Your task to perform on an android device: empty trash in google photos Image 0: 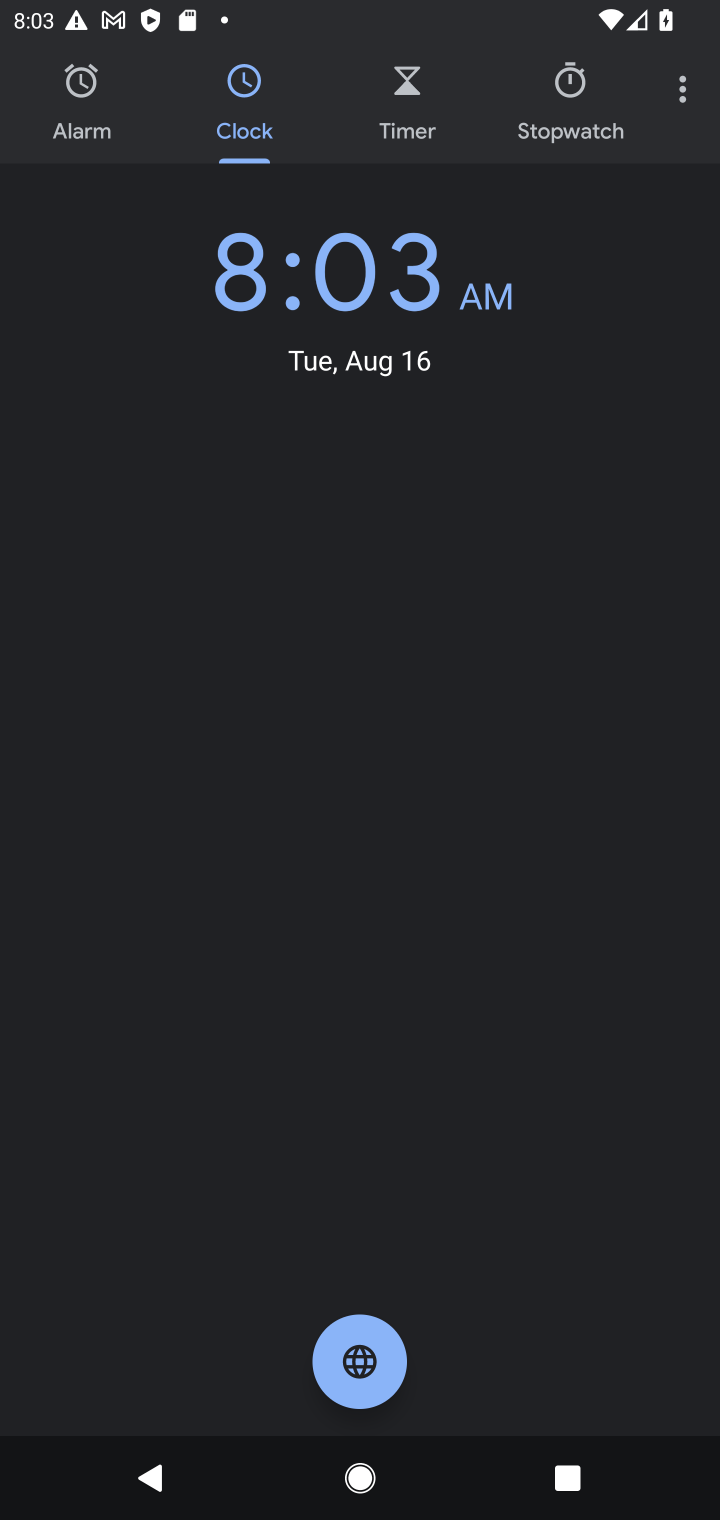
Step 0: press home button
Your task to perform on an android device: empty trash in google photos Image 1: 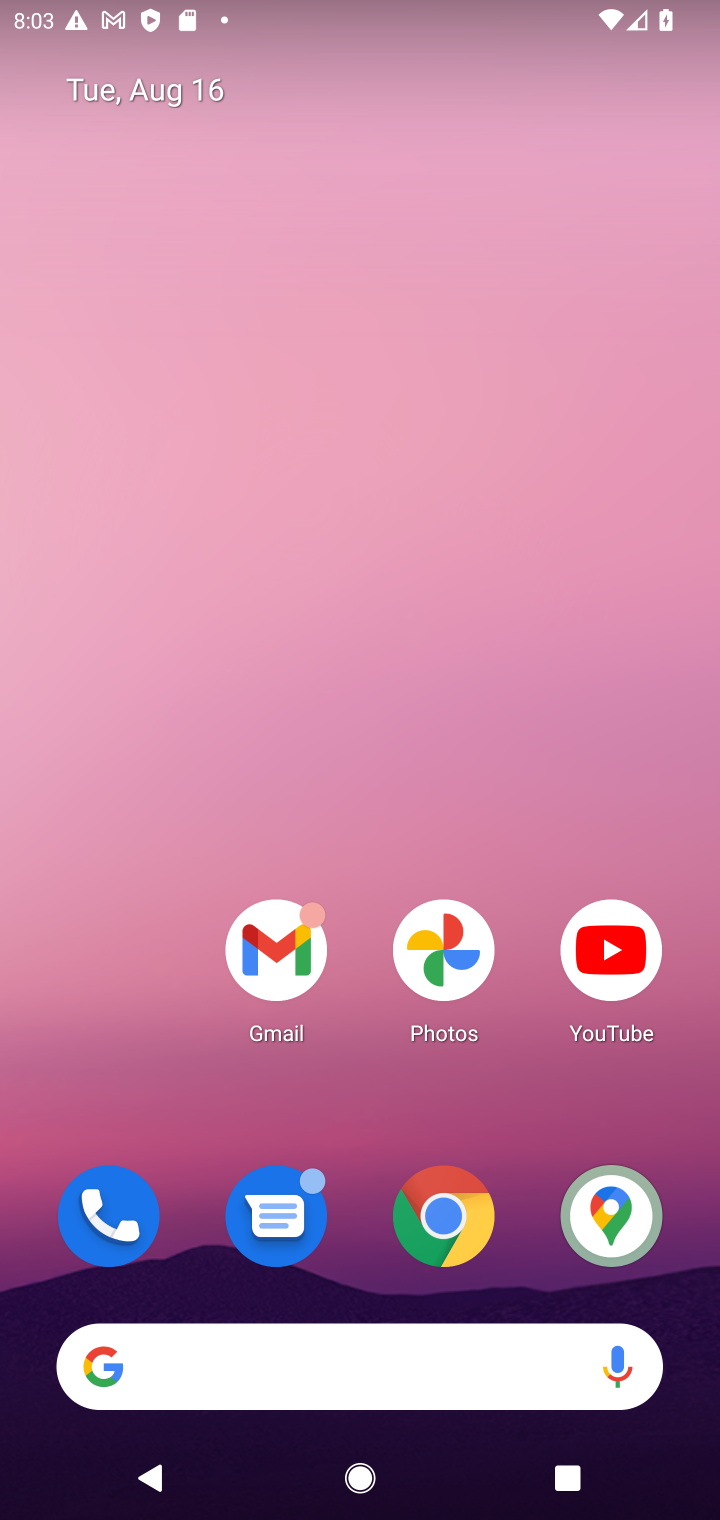
Step 1: drag from (380, 1243) to (528, 5)
Your task to perform on an android device: empty trash in google photos Image 2: 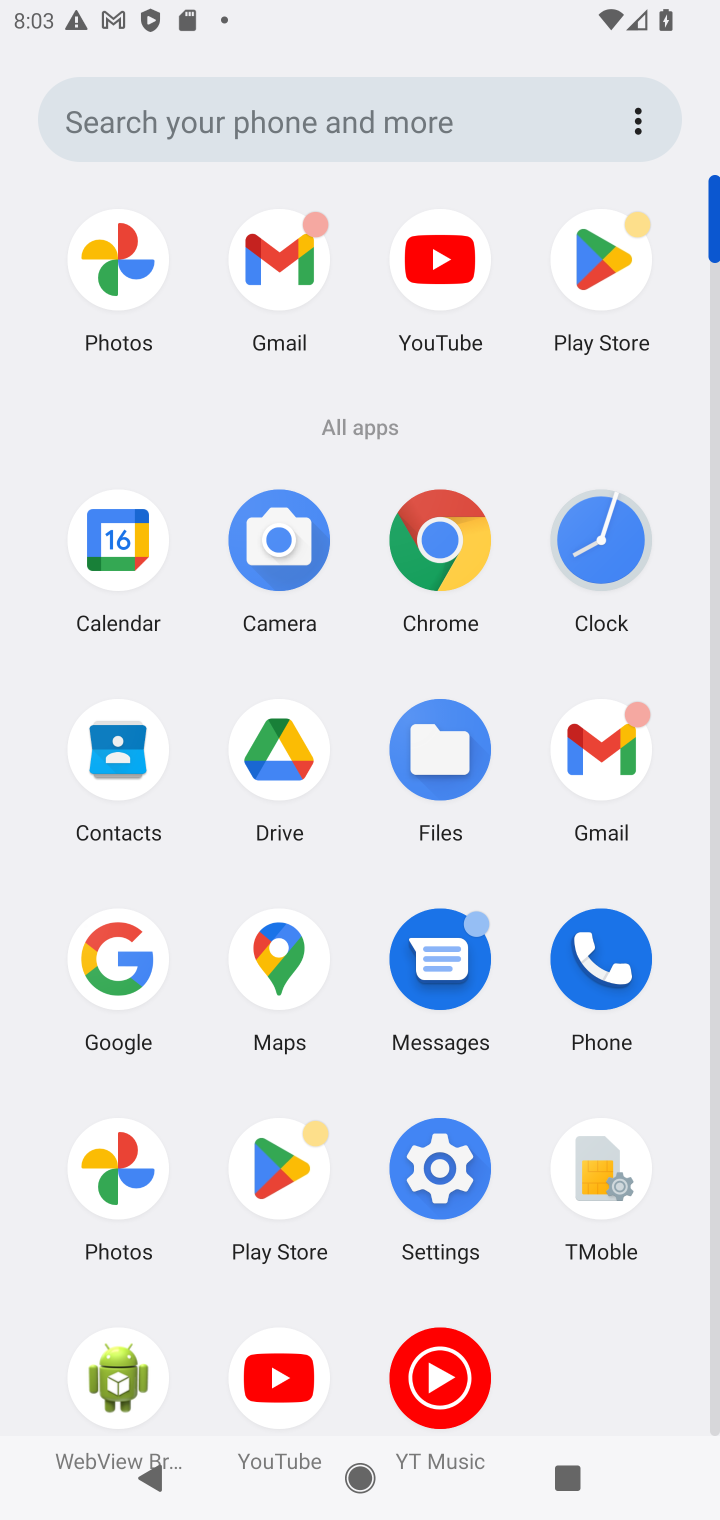
Step 2: click (112, 1187)
Your task to perform on an android device: empty trash in google photos Image 3: 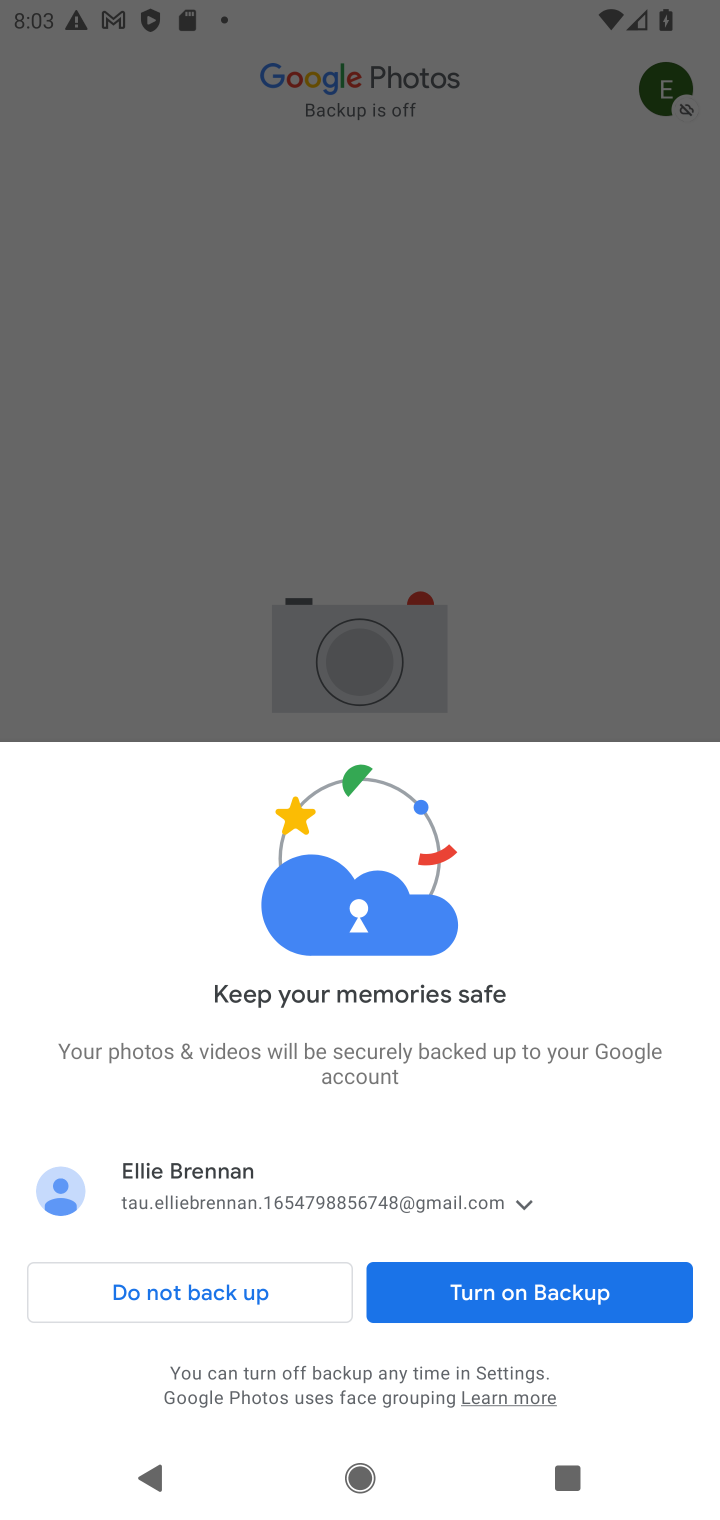
Step 3: click (518, 1286)
Your task to perform on an android device: empty trash in google photos Image 4: 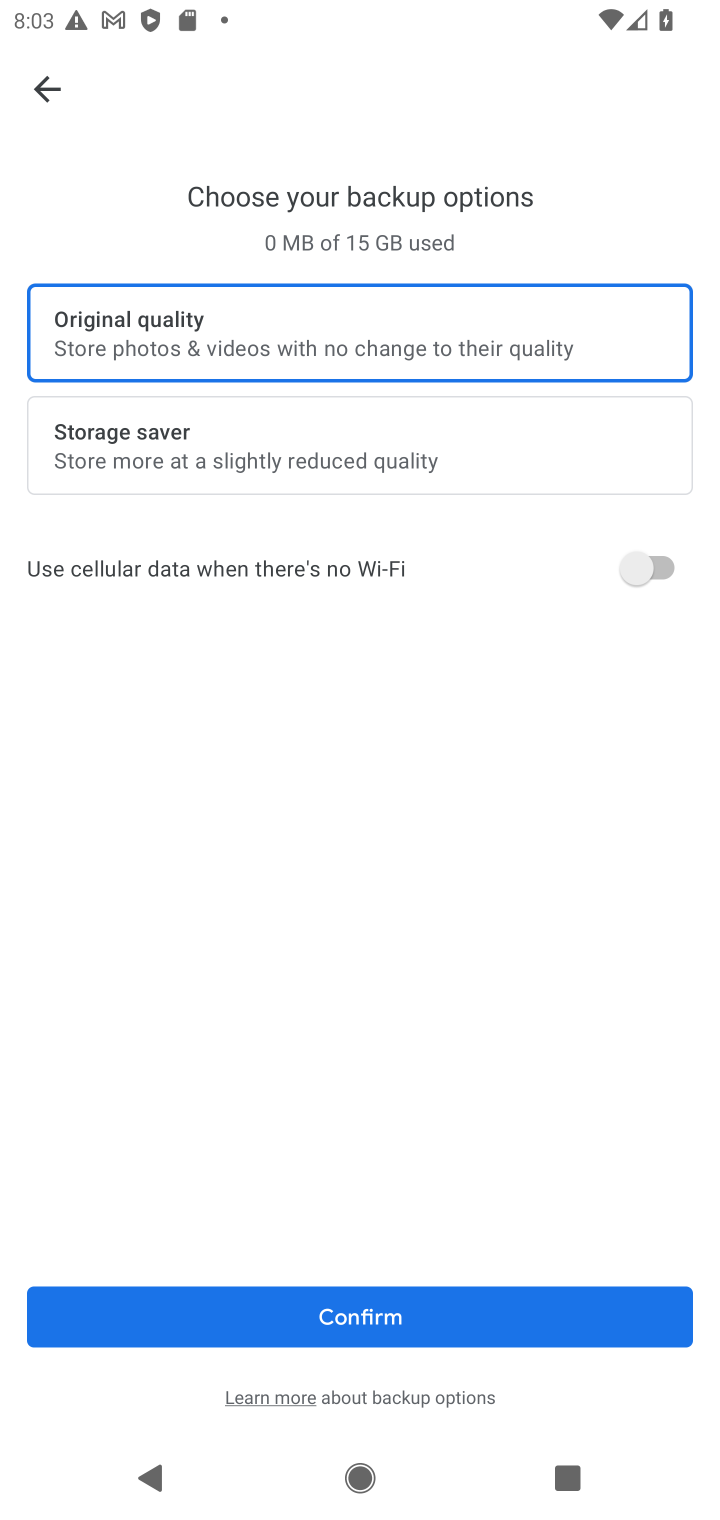
Step 4: click (518, 1286)
Your task to perform on an android device: empty trash in google photos Image 5: 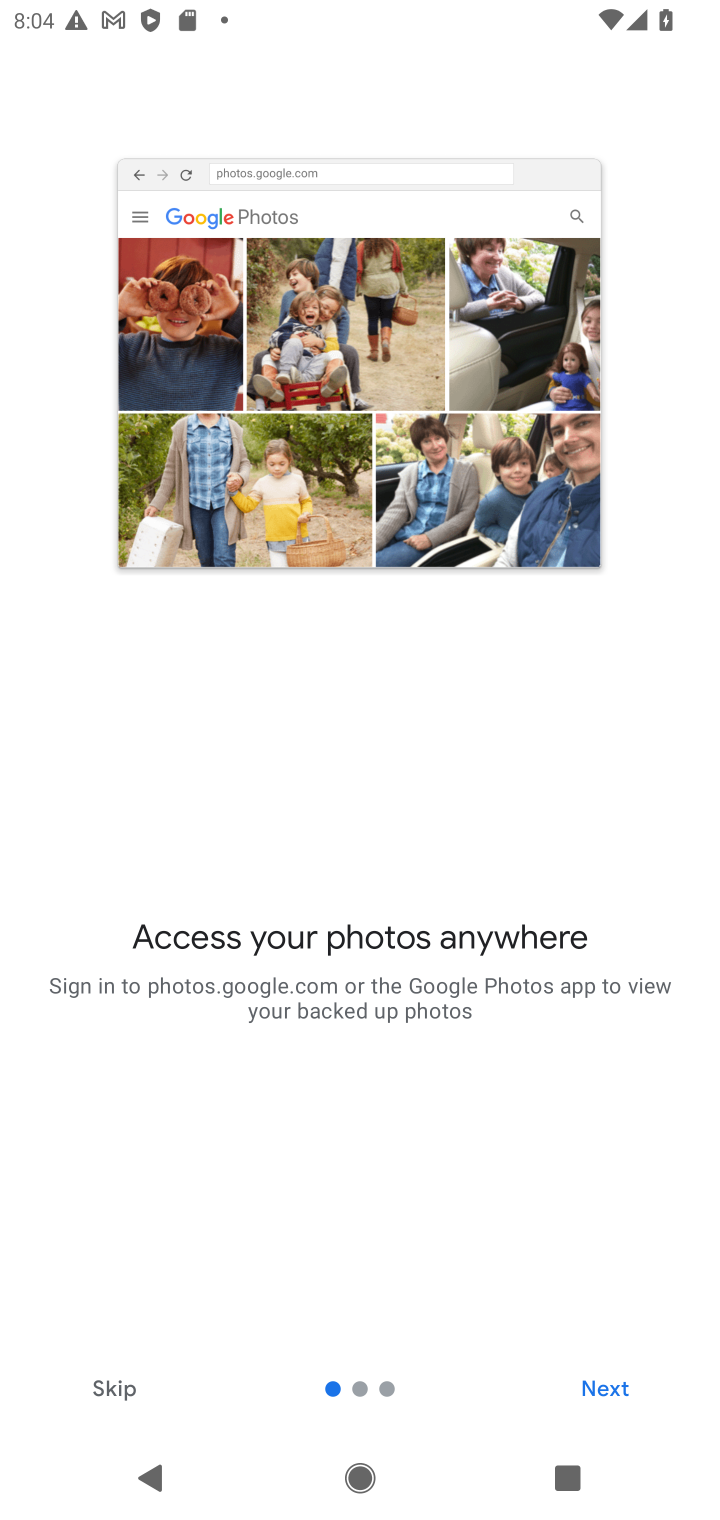
Step 5: click (618, 1397)
Your task to perform on an android device: empty trash in google photos Image 6: 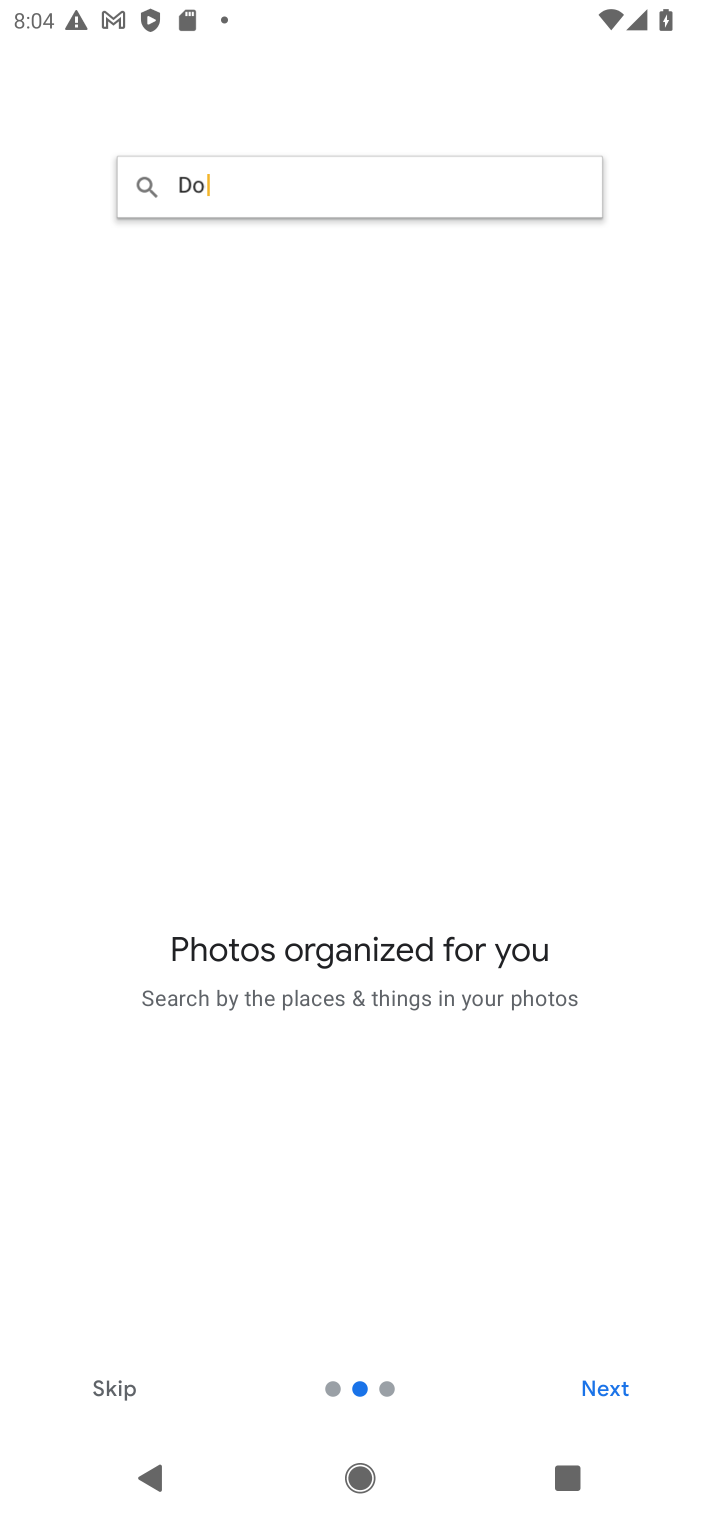
Step 6: click (618, 1397)
Your task to perform on an android device: empty trash in google photos Image 7: 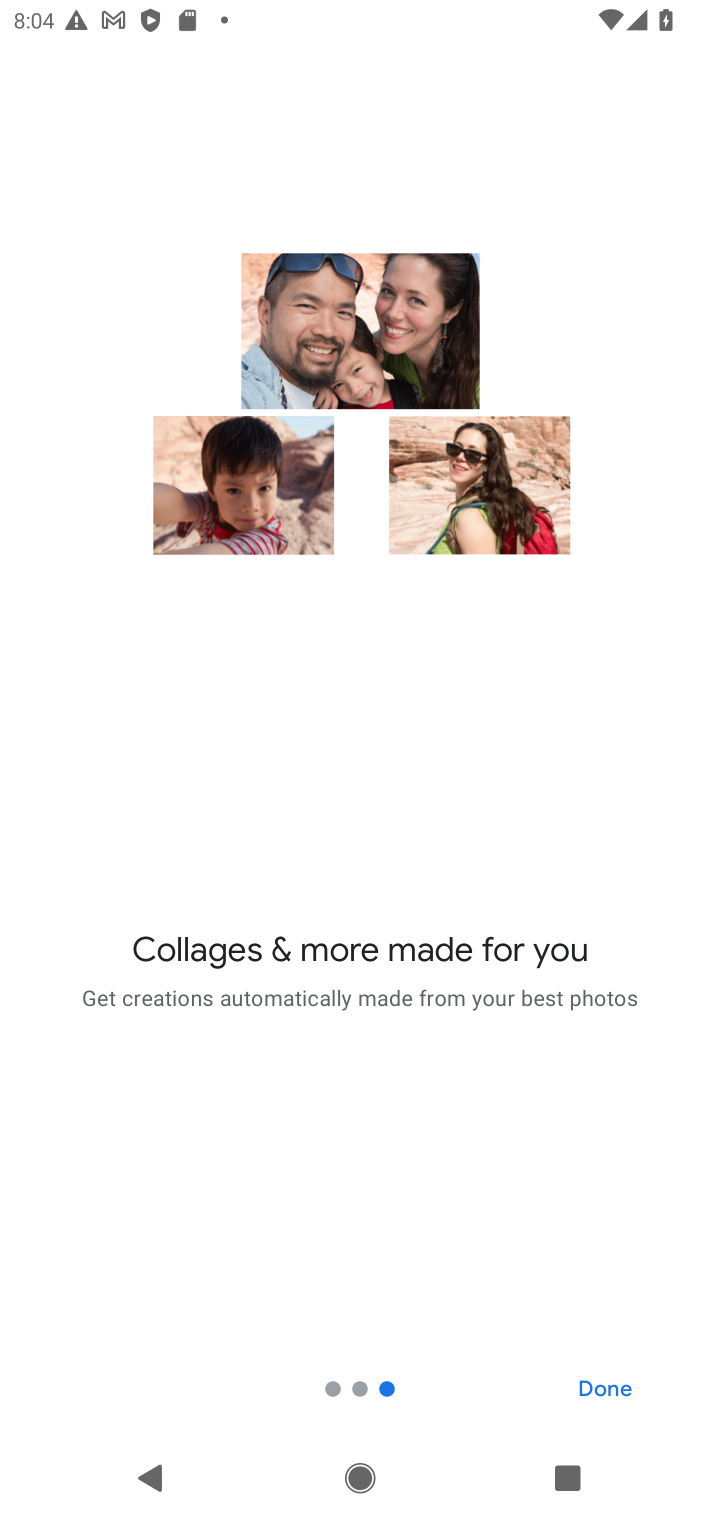
Step 7: click (618, 1397)
Your task to perform on an android device: empty trash in google photos Image 8: 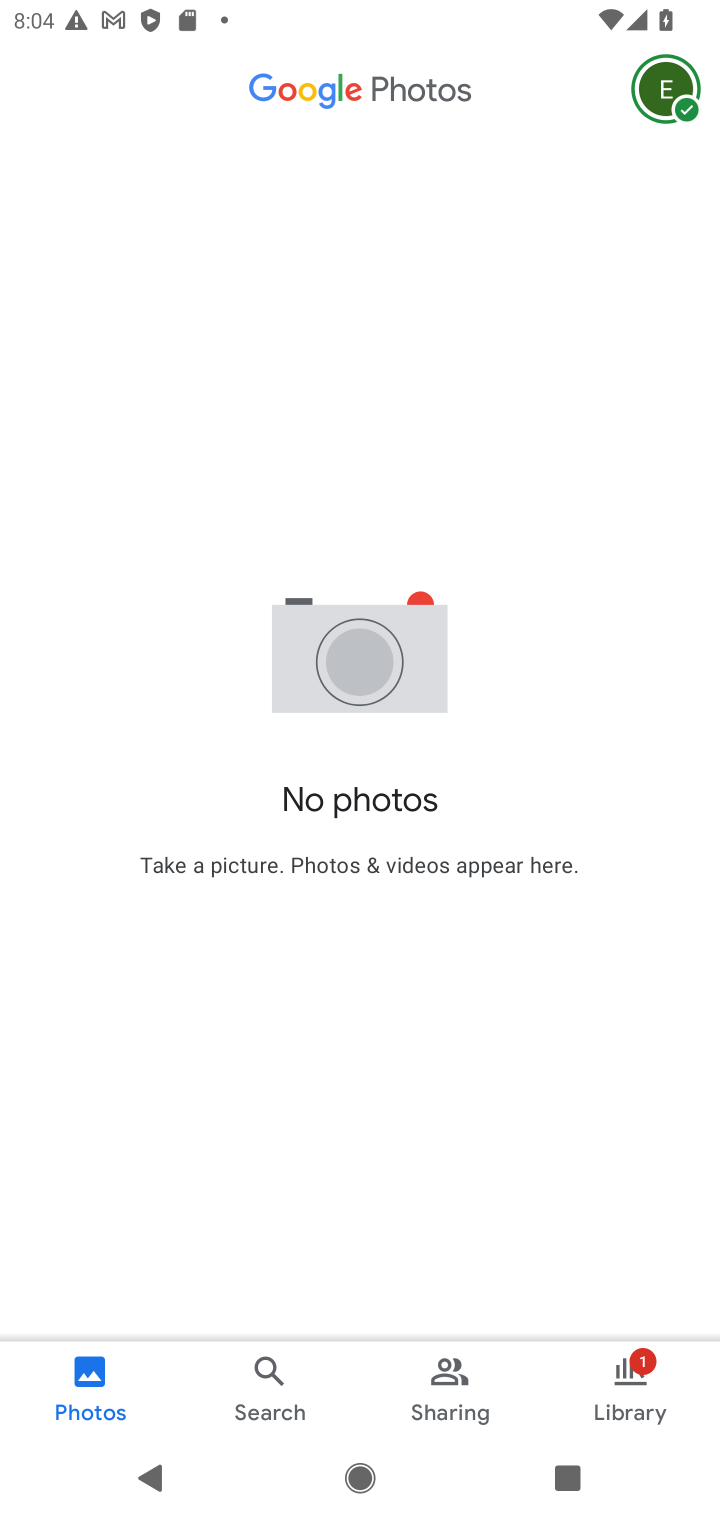
Step 8: click (666, 84)
Your task to perform on an android device: empty trash in google photos Image 9: 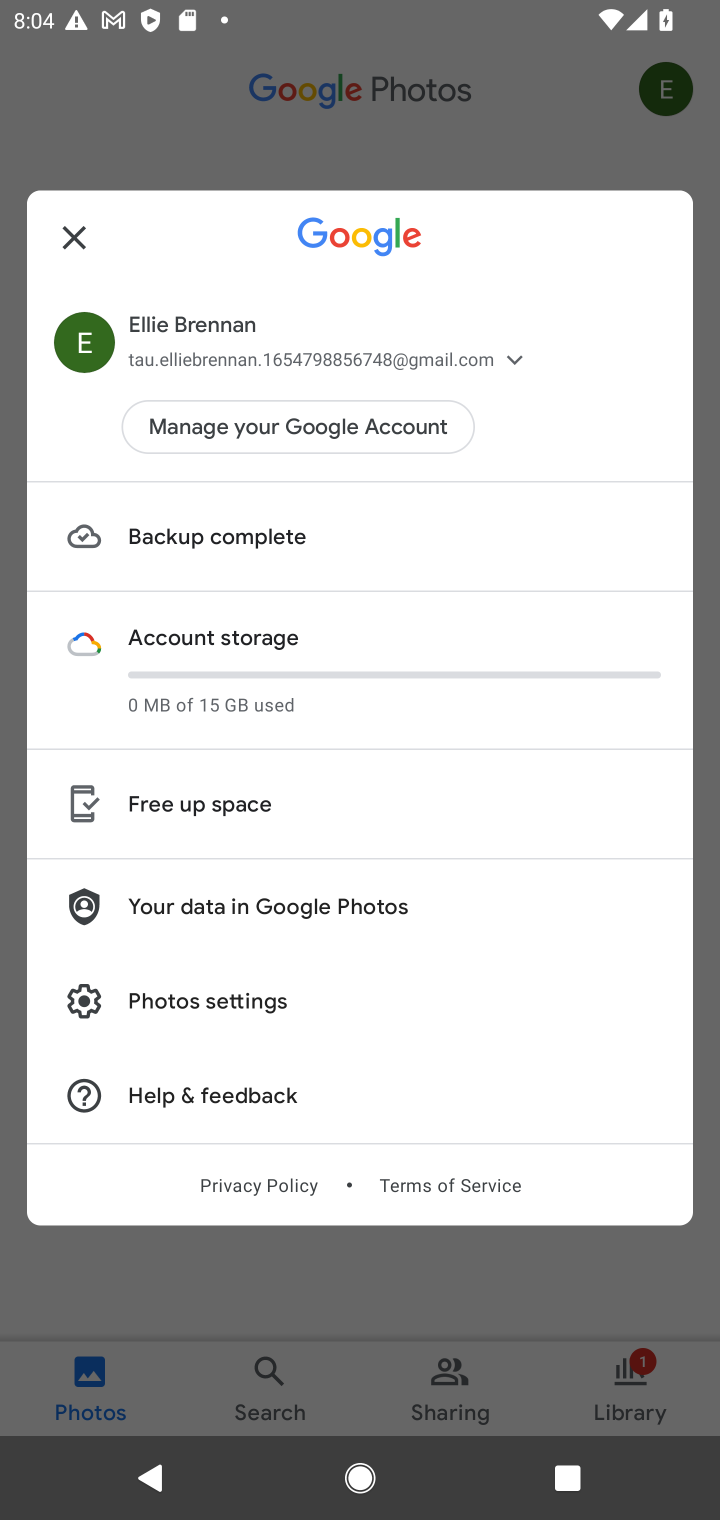
Step 9: click (615, 1290)
Your task to perform on an android device: empty trash in google photos Image 10: 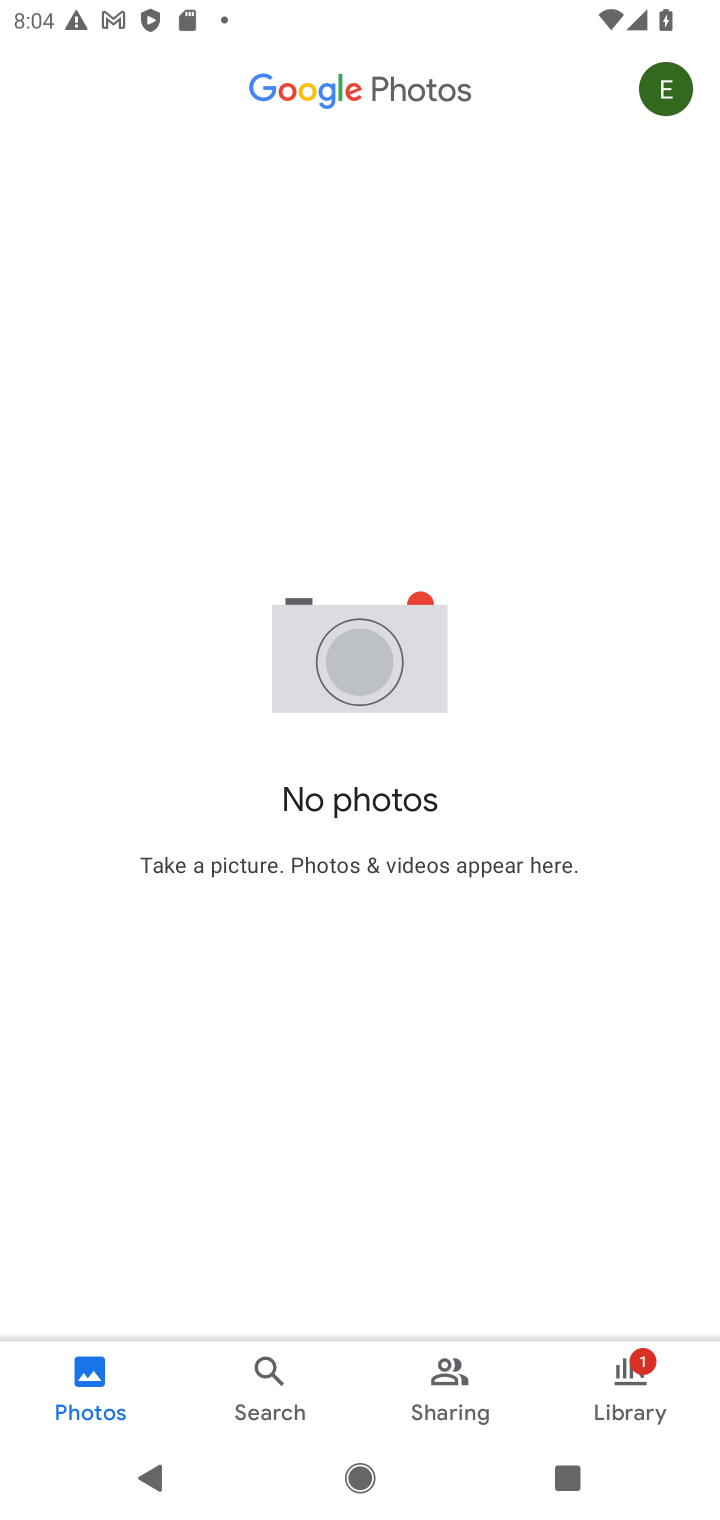
Step 10: click (639, 1382)
Your task to perform on an android device: empty trash in google photos Image 11: 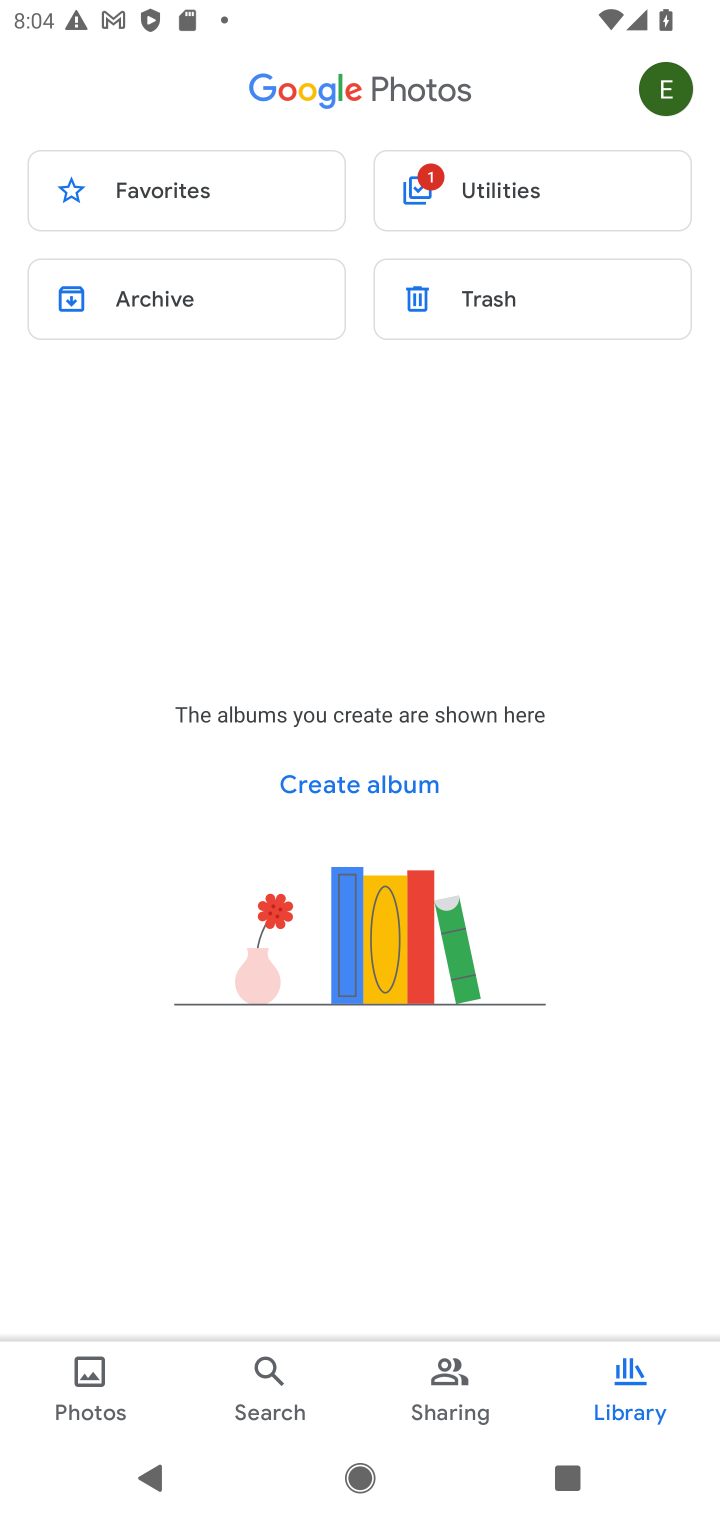
Step 11: click (452, 292)
Your task to perform on an android device: empty trash in google photos Image 12: 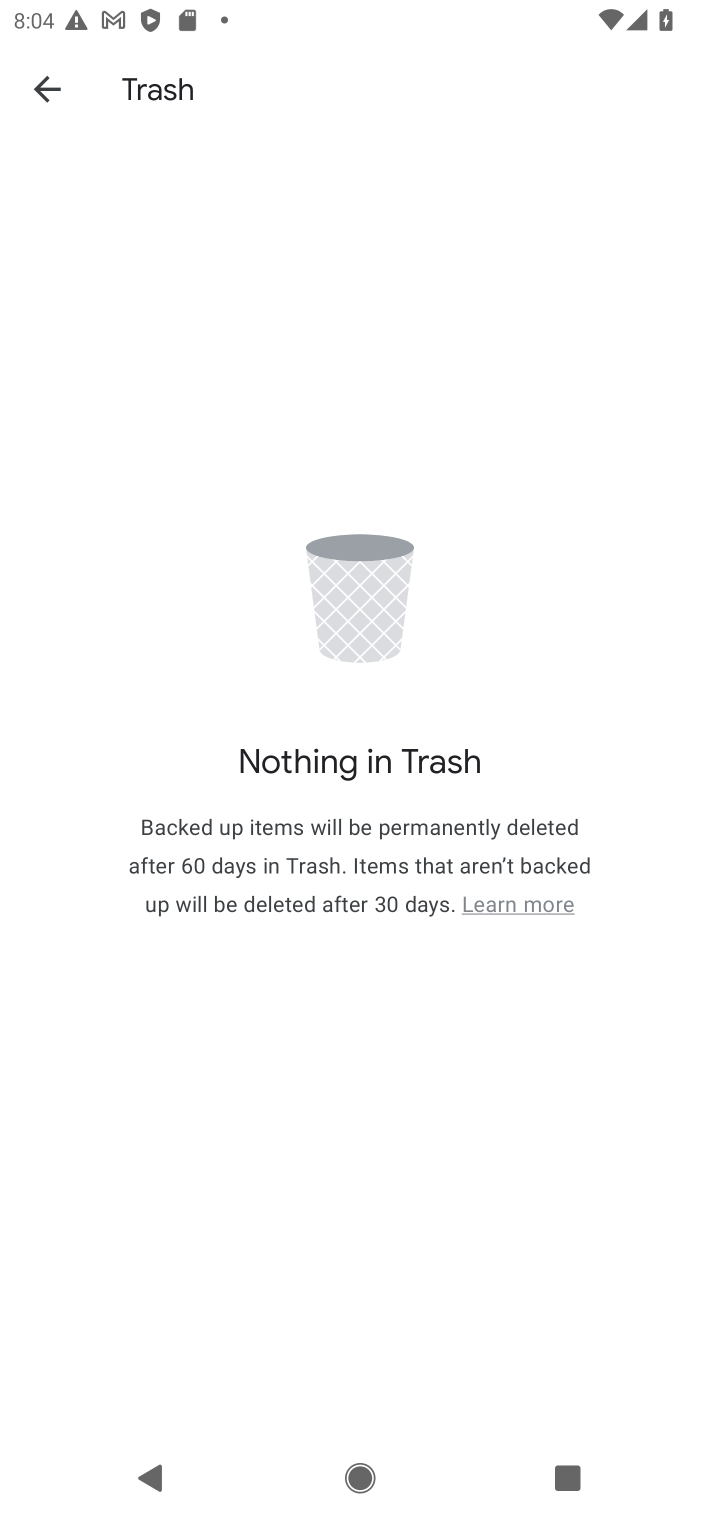
Step 12: task complete